Your task to perform on an android device: change notification settings in the gmail app Image 0: 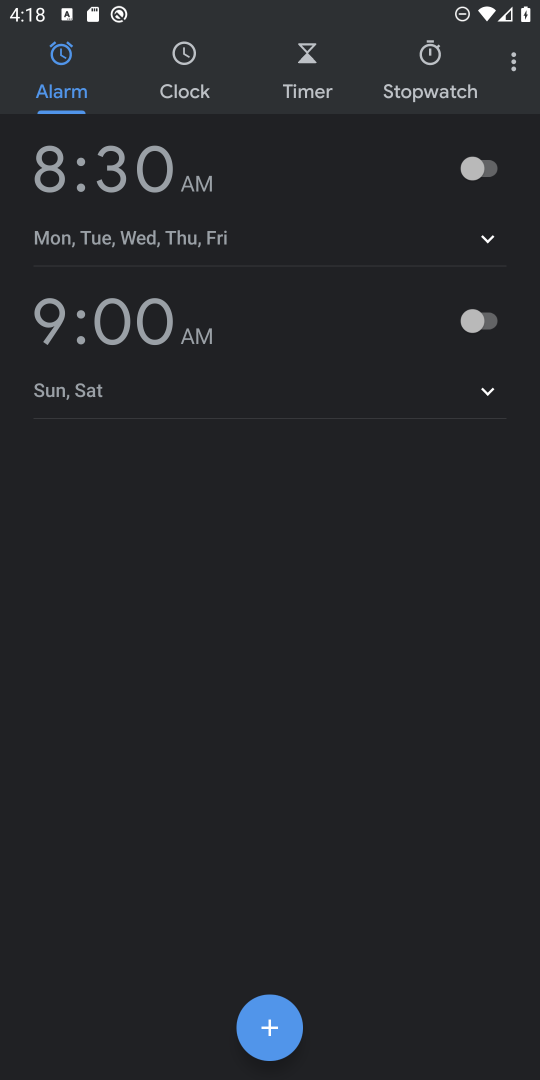
Step 0: press home button
Your task to perform on an android device: change notification settings in the gmail app Image 1: 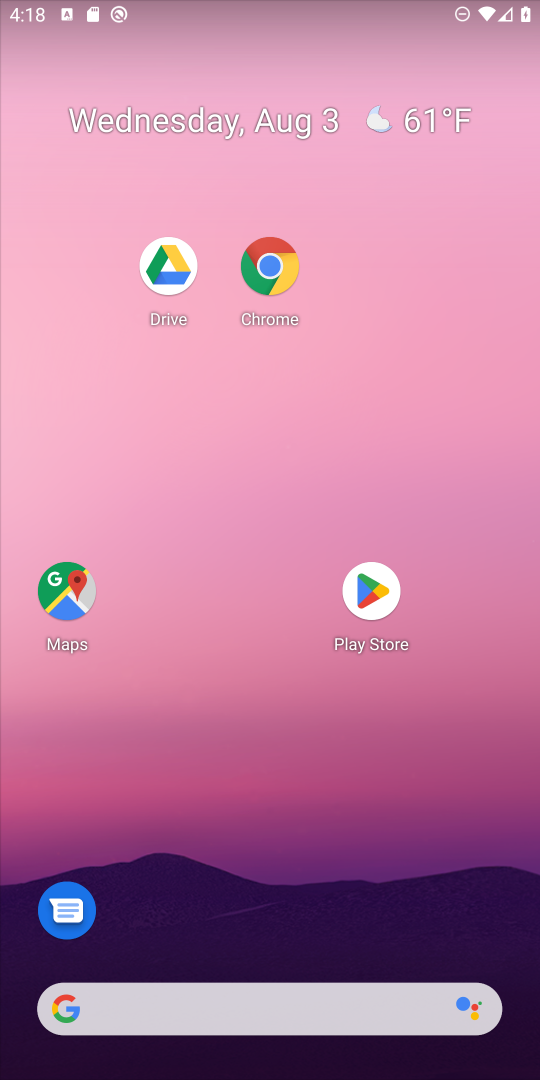
Step 1: drag from (255, 989) to (514, 36)
Your task to perform on an android device: change notification settings in the gmail app Image 2: 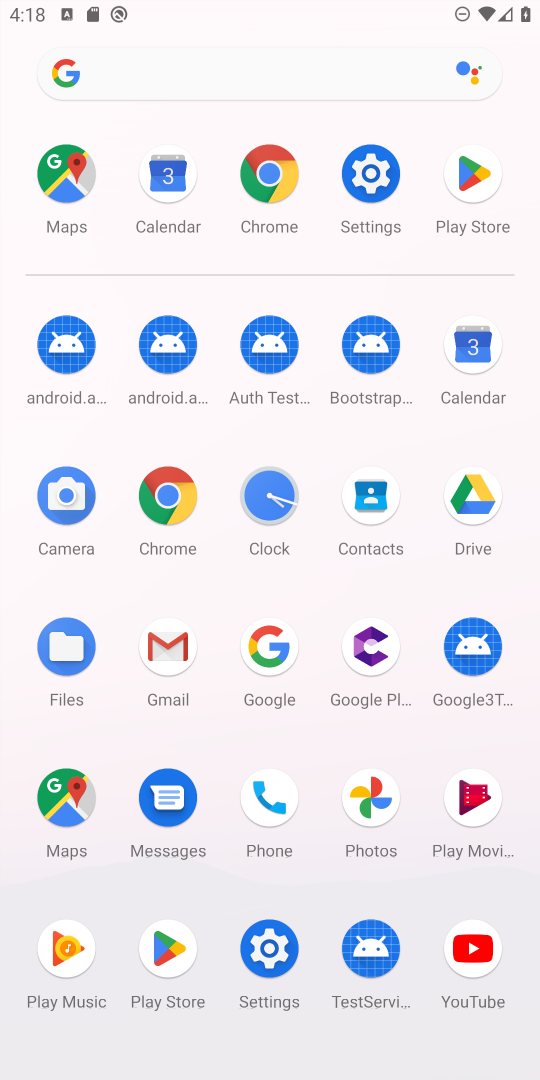
Step 2: click (176, 650)
Your task to perform on an android device: change notification settings in the gmail app Image 3: 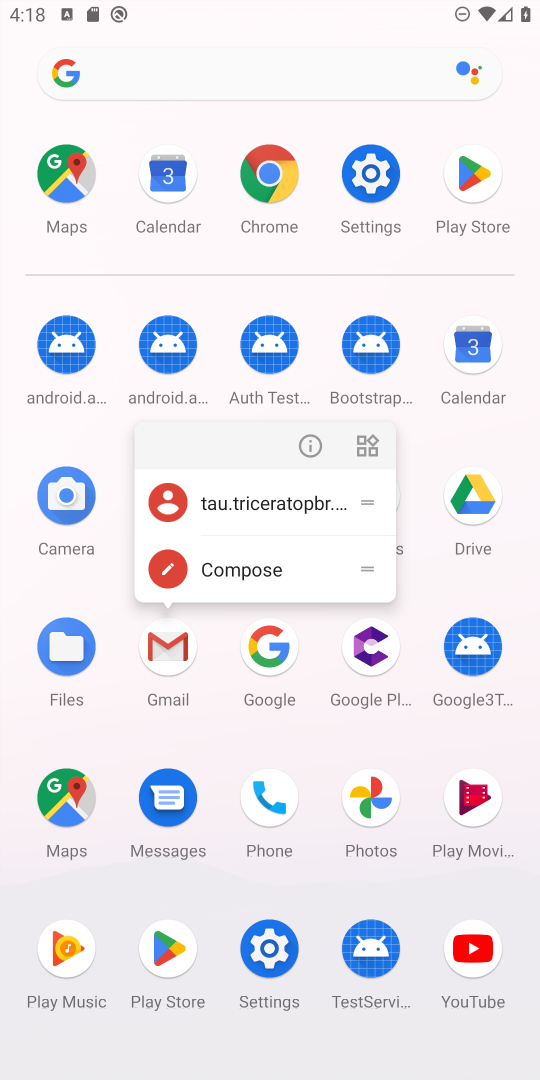
Step 3: click (176, 650)
Your task to perform on an android device: change notification settings in the gmail app Image 4: 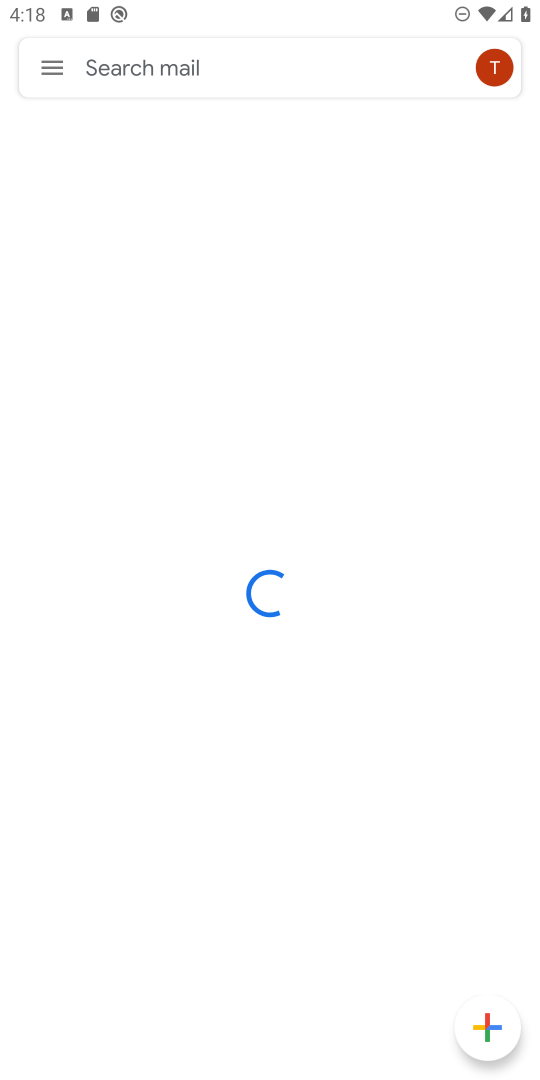
Step 4: click (54, 74)
Your task to perform on an android device: change notification settings in the gmail app Image 5: 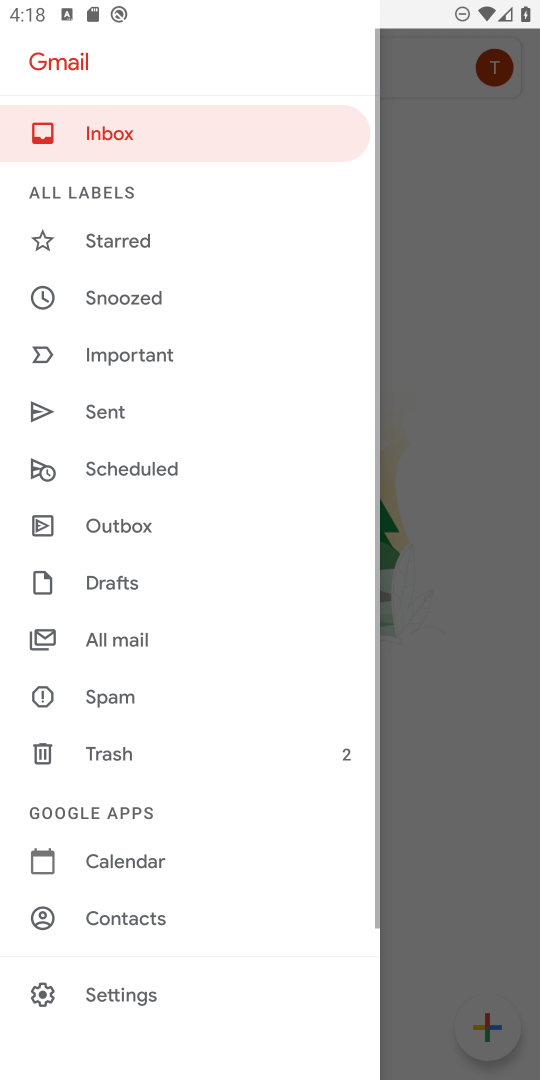
Step 5: click (152, 998)
Your task to perform on an android device: change notification settings in the gmail app Image 6: 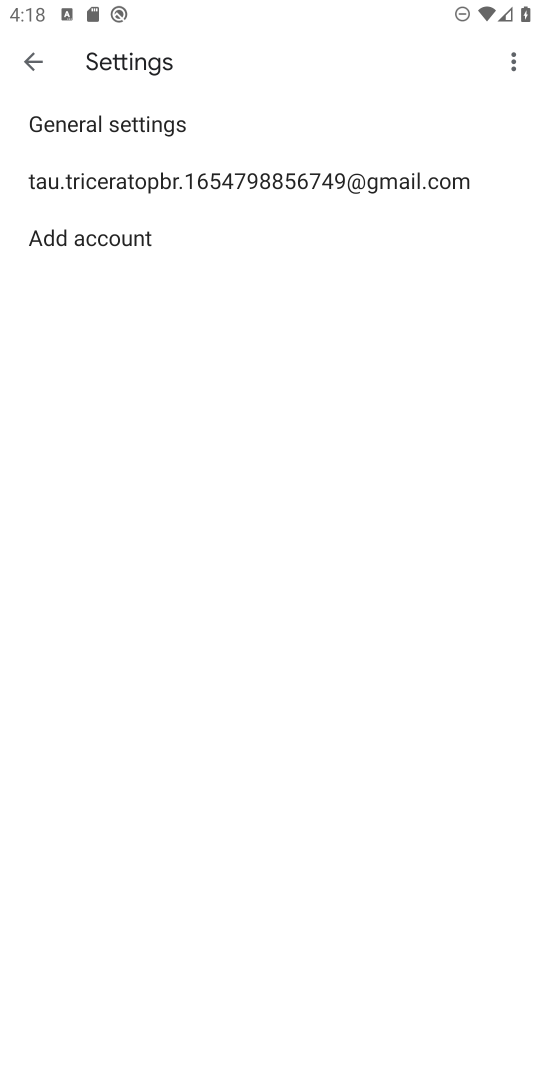
Step 6: click (151, 184)
Your task to perform on an android device: change notification settings in the gmail app Image 7: 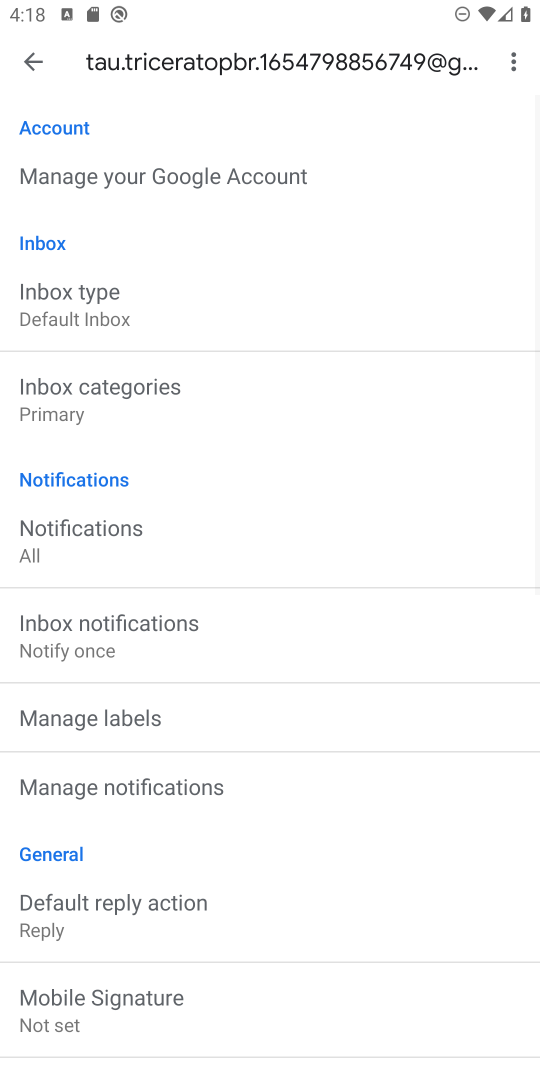
Step 7: click (154, 783)
Your task to perform on an android device: change notification settings in the gmail app Image 8: 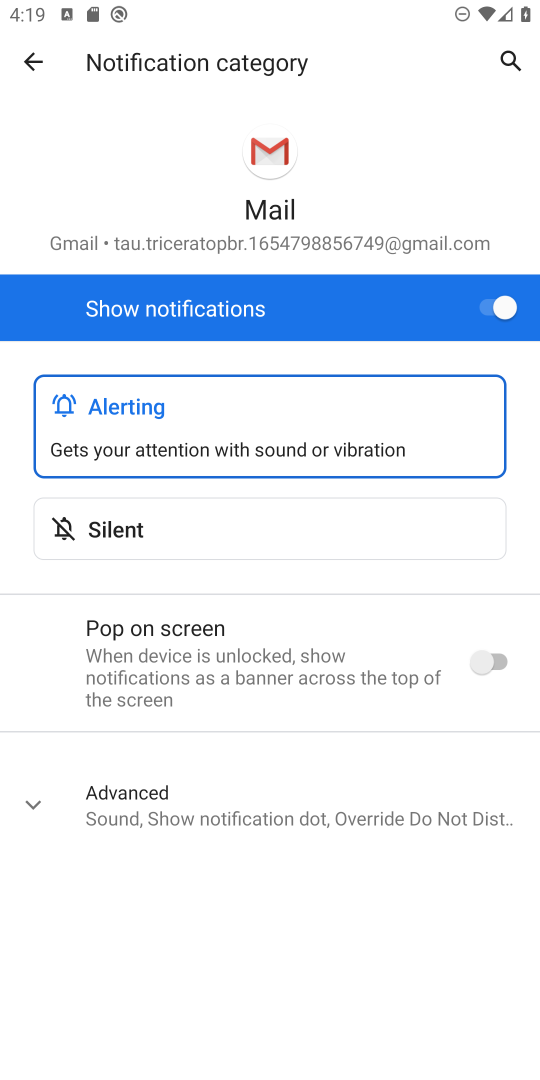
Step 8: click (493, 310)
Your task to perform on an android device: change notification settings in the gmail app Image 9: 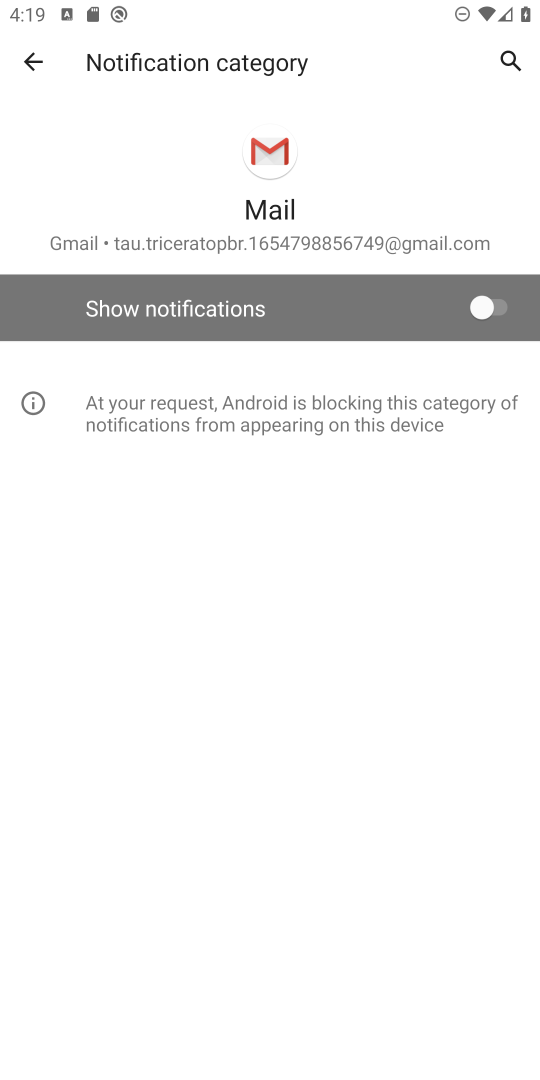
Step 9: task complete